Your task to perform on an android device: allow notifications from all sites in the chrome app Image 0: 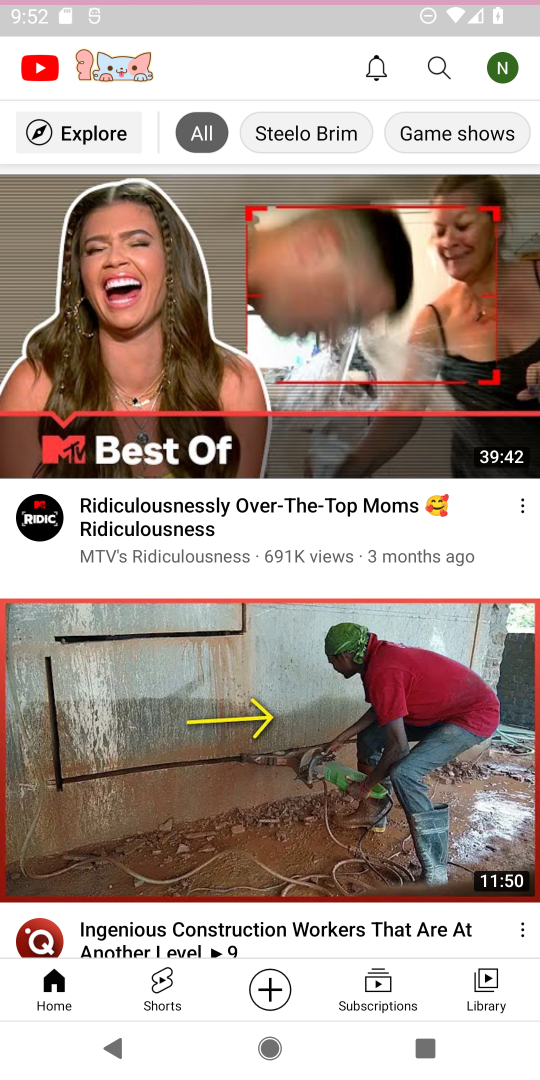
Step 0: press home button
Your task to perform on an android device: allow notifications from all sites in the chrome app Image 1: 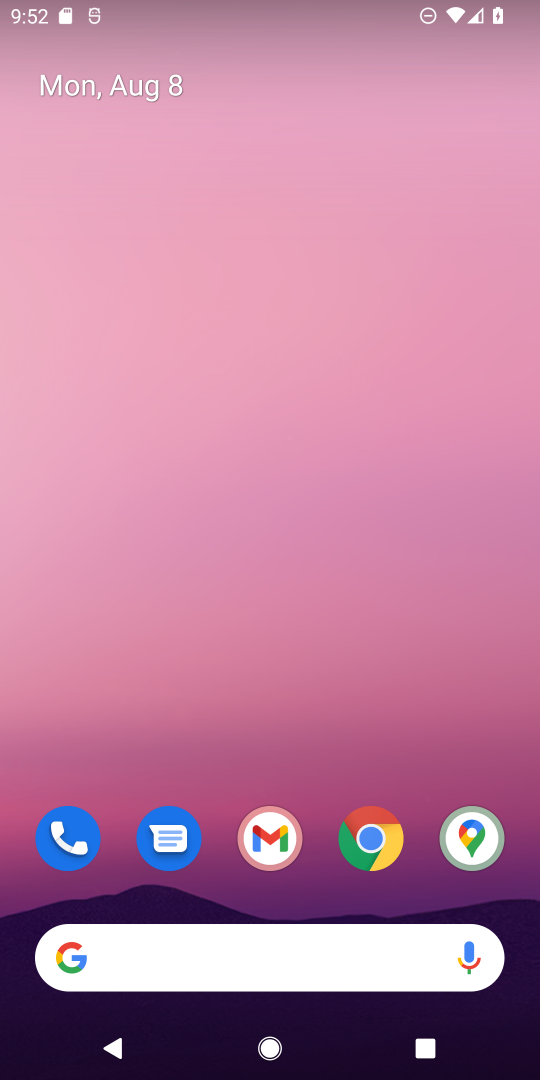
Step 1: drag from (328, 890) to (271, 376)
Your task to perform on an android device: allow notifications from all sites in the chrome app Image 2: 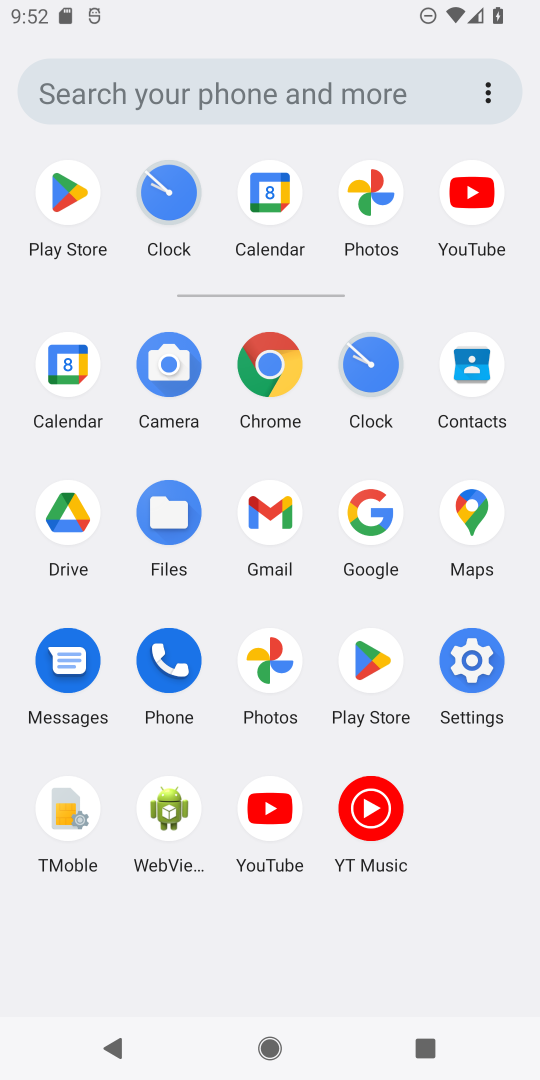
Step 2: click (270, 371)
Your task to perform on an android device: allow notifications from all sites in the chrome app Image 3: 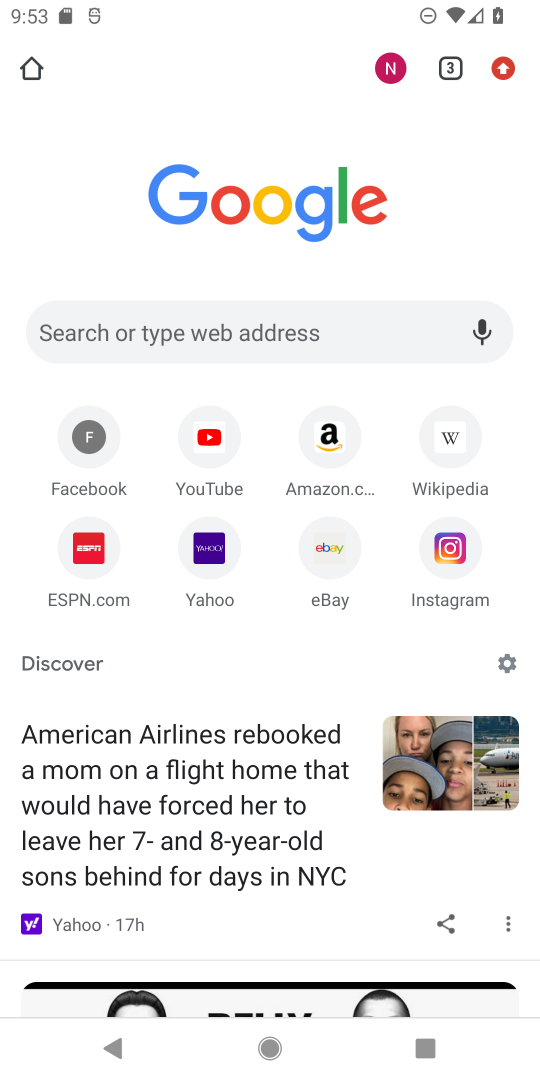
Step 3: drag from (502, 66) to (312, 722)
Your task to perform on an android device: allow notifications from all sites in the chrome app Image 4: 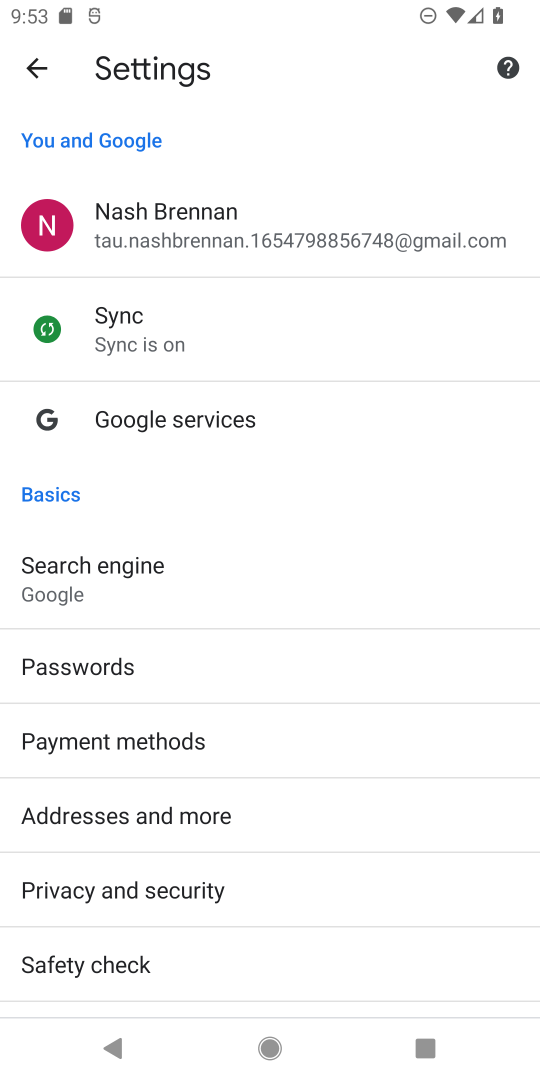
Step 4: drag from (287, 929) to (238, 246)
Your task to perform on an android device: allow notifications from all sites in the chrome app Image 5: 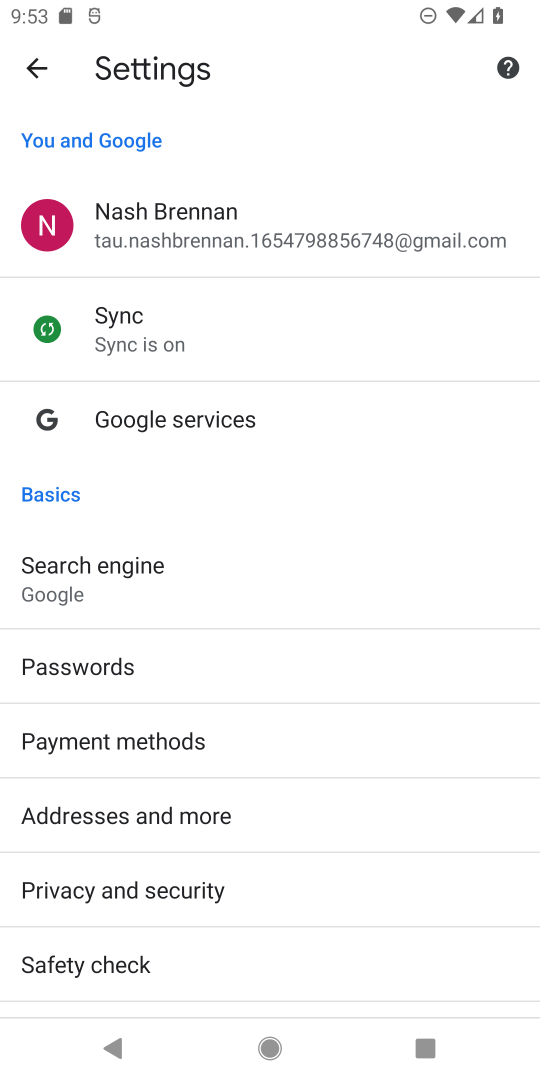
Step 5: drag from (322, 979) to (316, 343)
Your task to perform on an android device: allow notifications from all sites in the chrome app Image 6: 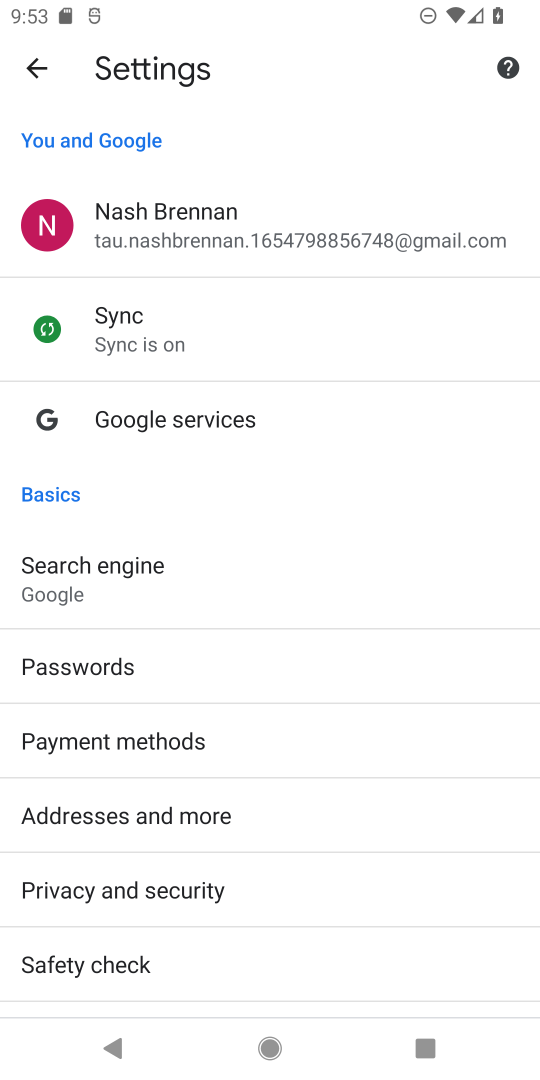
Step 6: drag from (332, 541) to (400, 5)
Your task to perform on an android device: allow notifications from all sites in the chrome app Image 7: 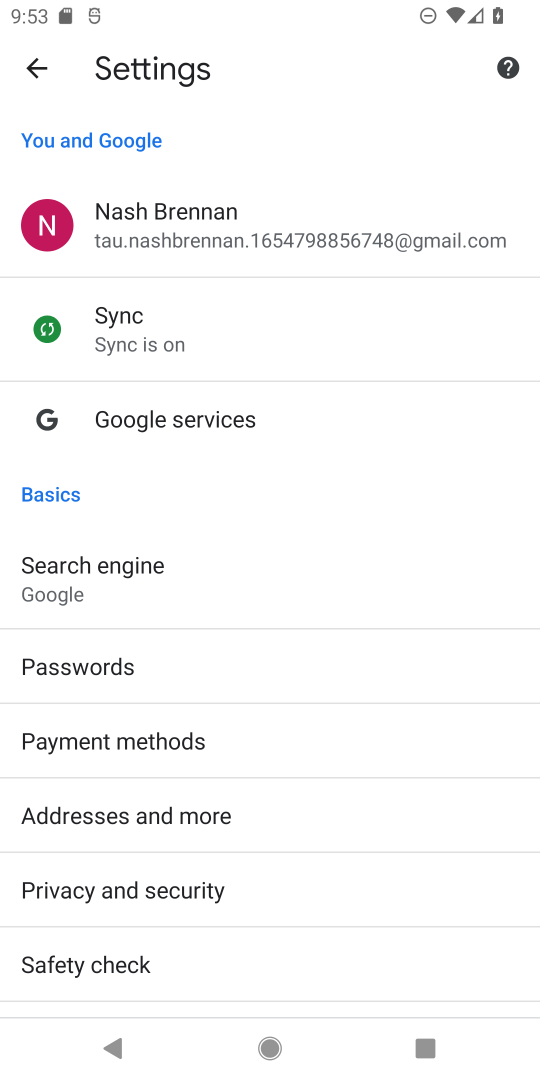
Step 7: drag from (230, 953) to (459, 23)
Your task to perform on an android device: allow notifications from all sites in the chrome app Image 8: 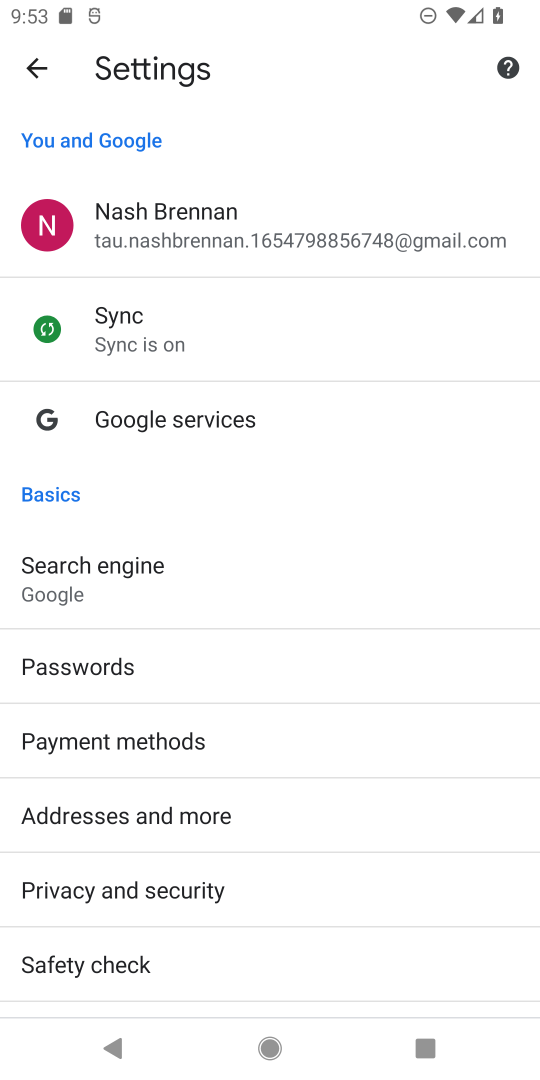
Step 8: drag from (392, 802) to (346, 136)
Your task to perform on an android device: allow notifications from all sites in the chrome app Image 9: 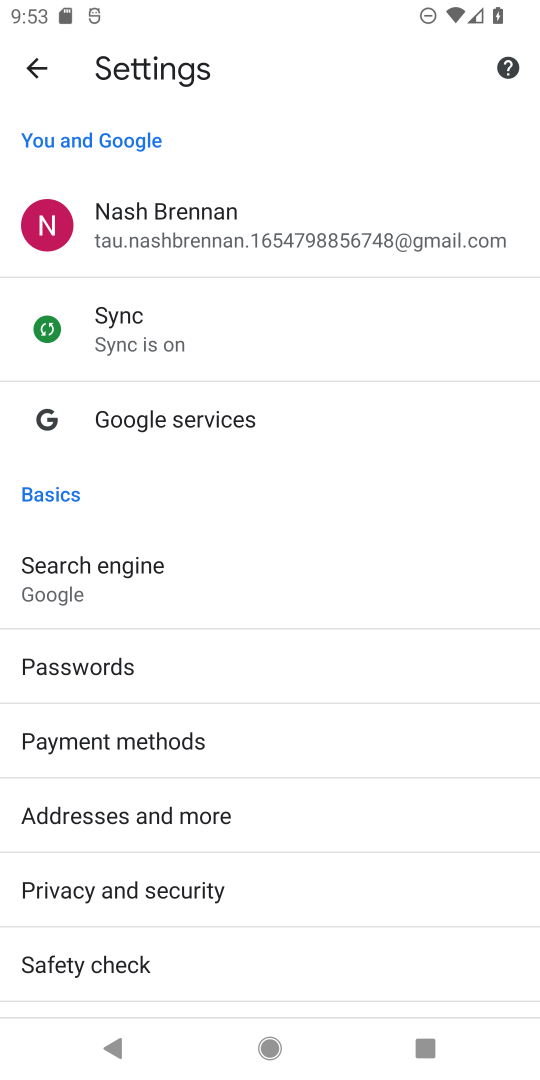
Step 9: drag from (247, 599) to (208, 0)
Your task to perform on an android device: allow notifications from all sites in the chrome app Image 10: 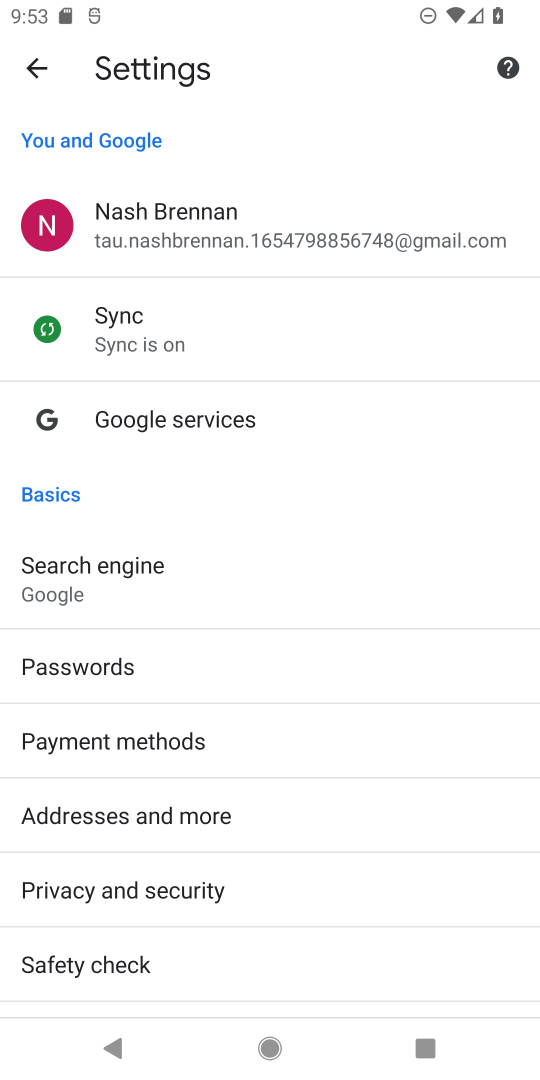
Step 10: drag from (390, 964) to (503, 219)
Your task to perform on an android device: allow notifications from all sites in the chrome app Image 11: 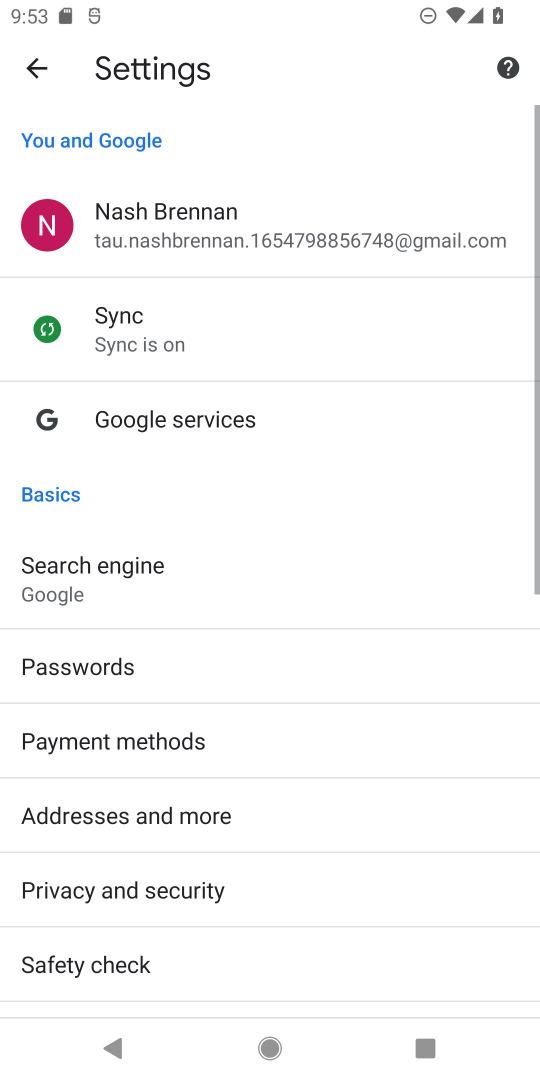
Step 11: drag from (374, 947) to (360, 140)
Your task to perform on an android device: allow notifications from all sites in the chrome app Image 12: 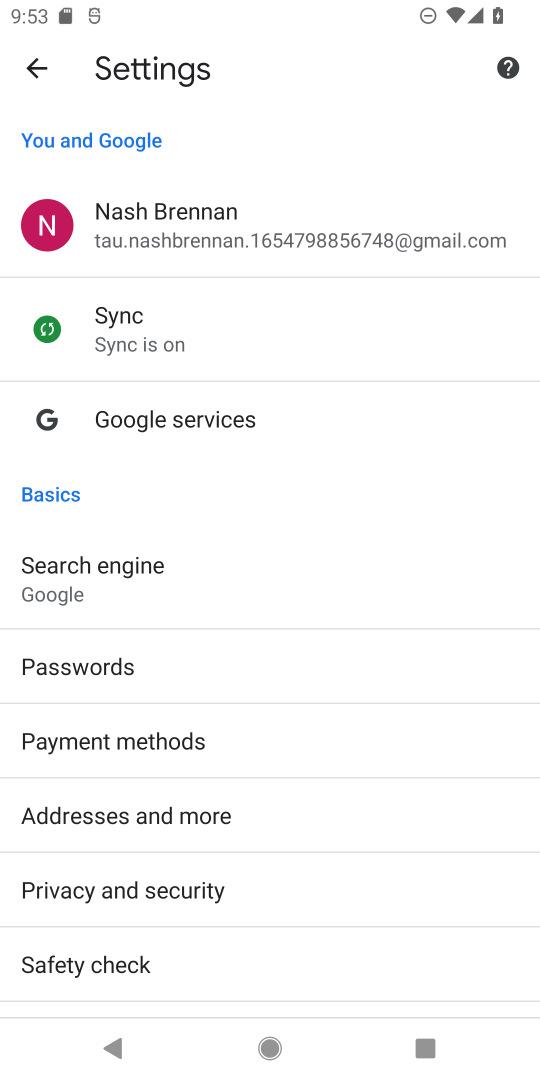
Step 12: drag from (324, 876) to (322, 209)
Your task to perform on an android device: allow notifications from all sites in the chrome app Image 13: 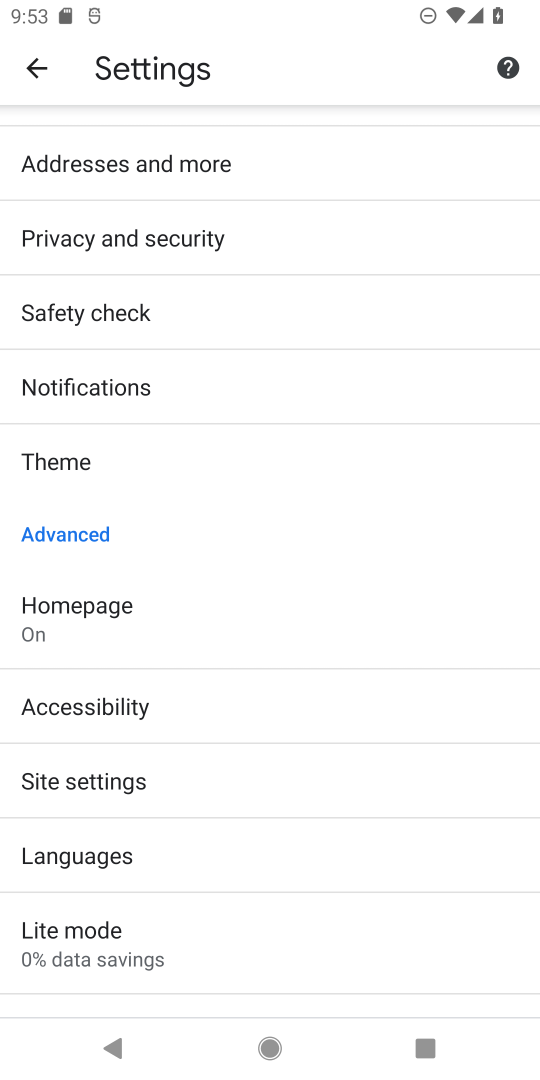
Step 13: drag from (366, 927) to (274, 2)
Your task to perform on an android device: allow notifications from all sites in the chrome app Image 14: 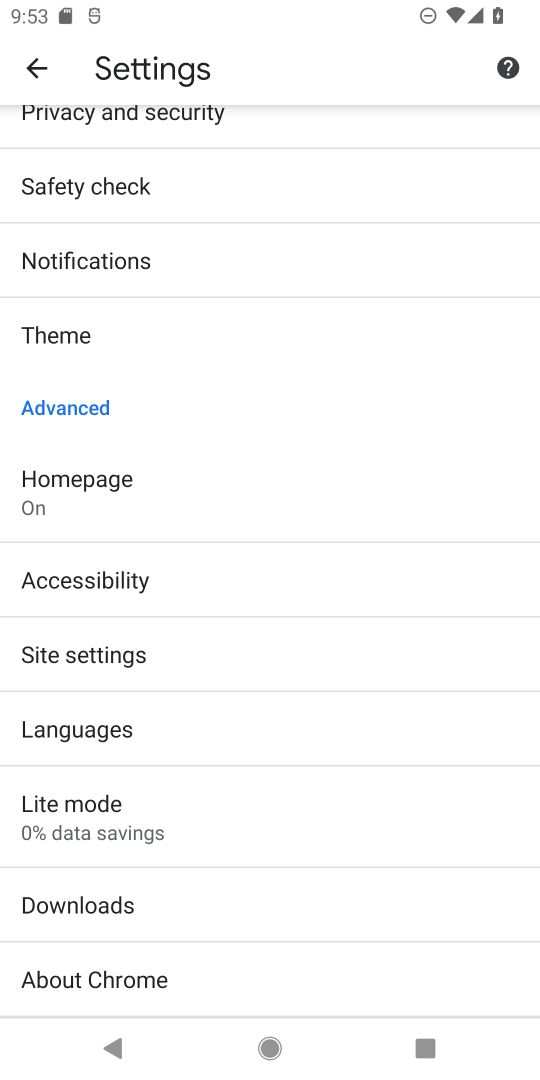
Step 14: click (88, 662)
Your task to perform on an android device: allow notifications from all sites in the chrome app Image 15: 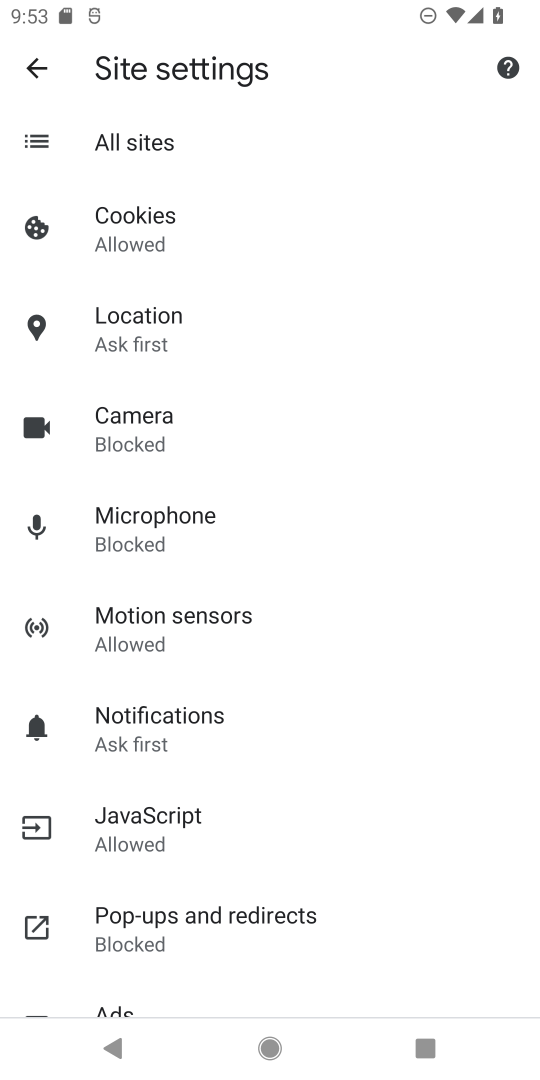
Step 15: click (139, 731)
Your task to perform on an android device: allow notifications from all sites in the chrome app Image 16: 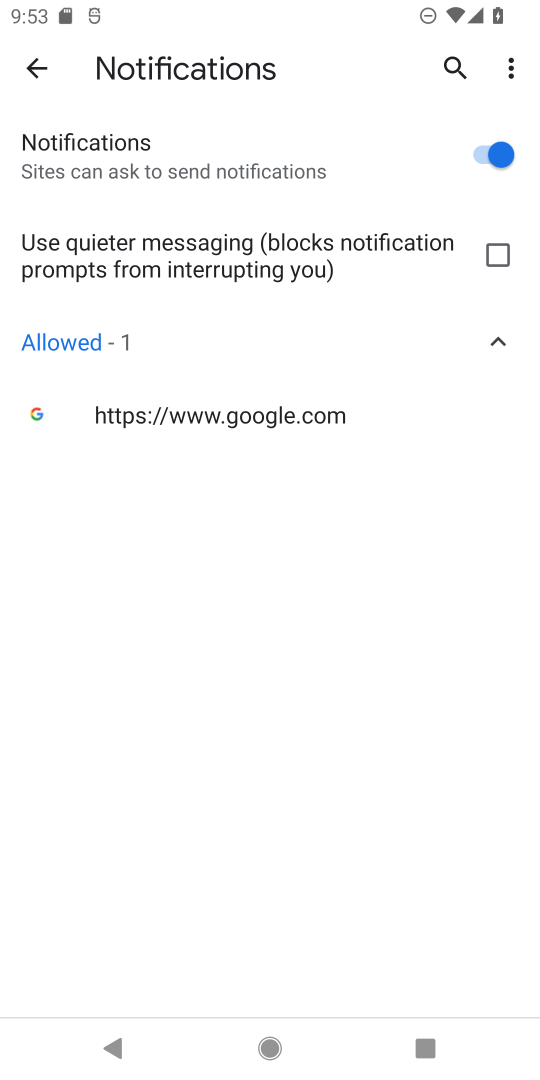
Step 16: task complete